Your task to perform on an android device: Open maps Image 0: 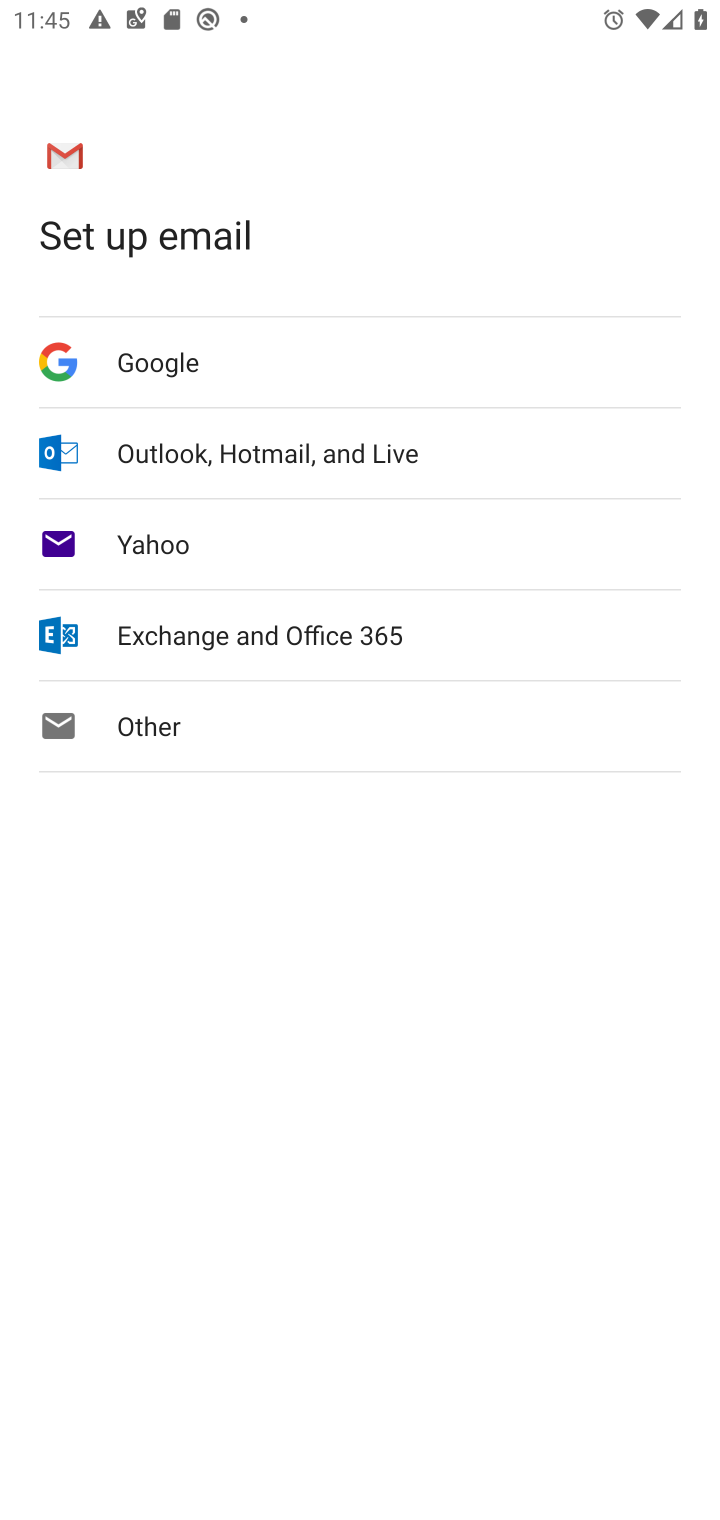
Step 0: press home button
Your task to perform on an android device: Open maps Image 1: 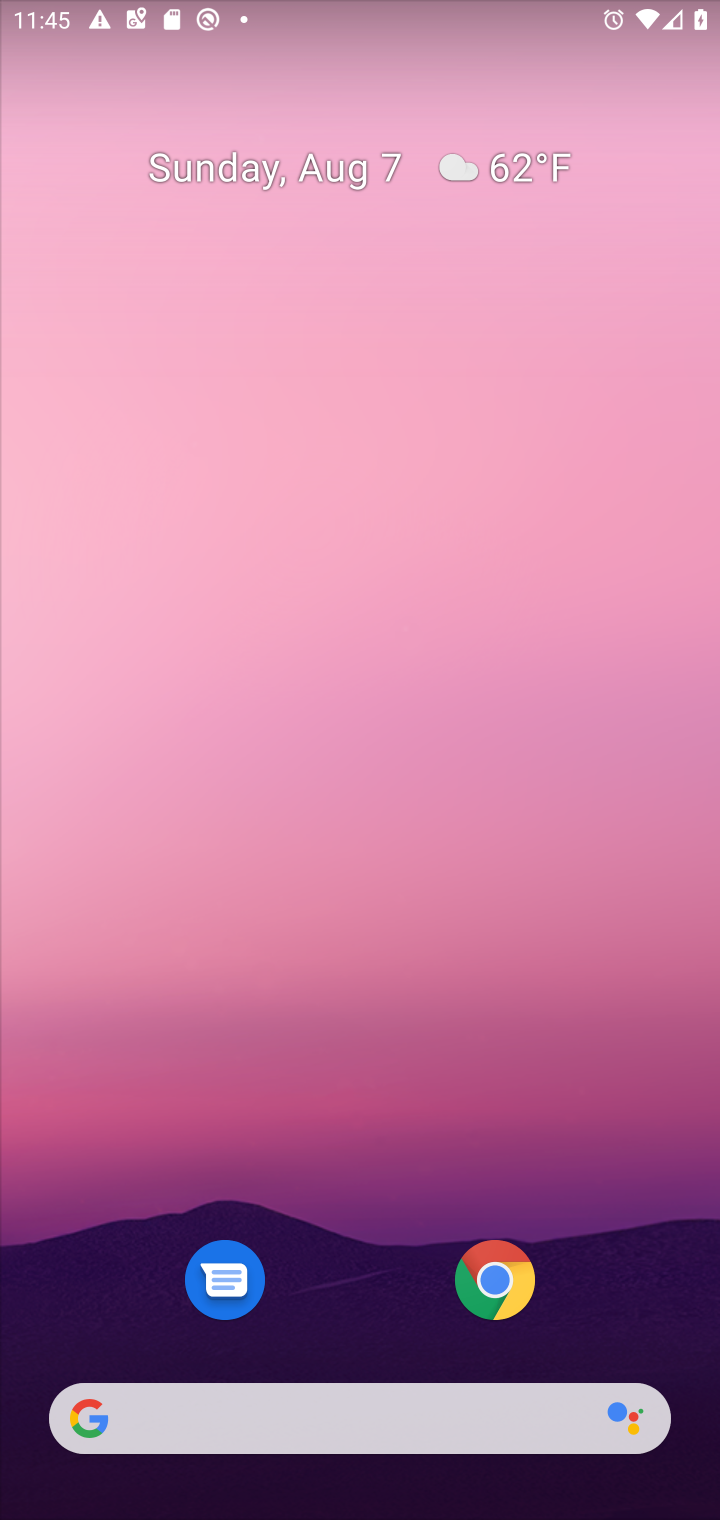
Step 1: drag from (362, 1368) to (280, 350)
Your task to perform on an android device: Open maps Image 2: 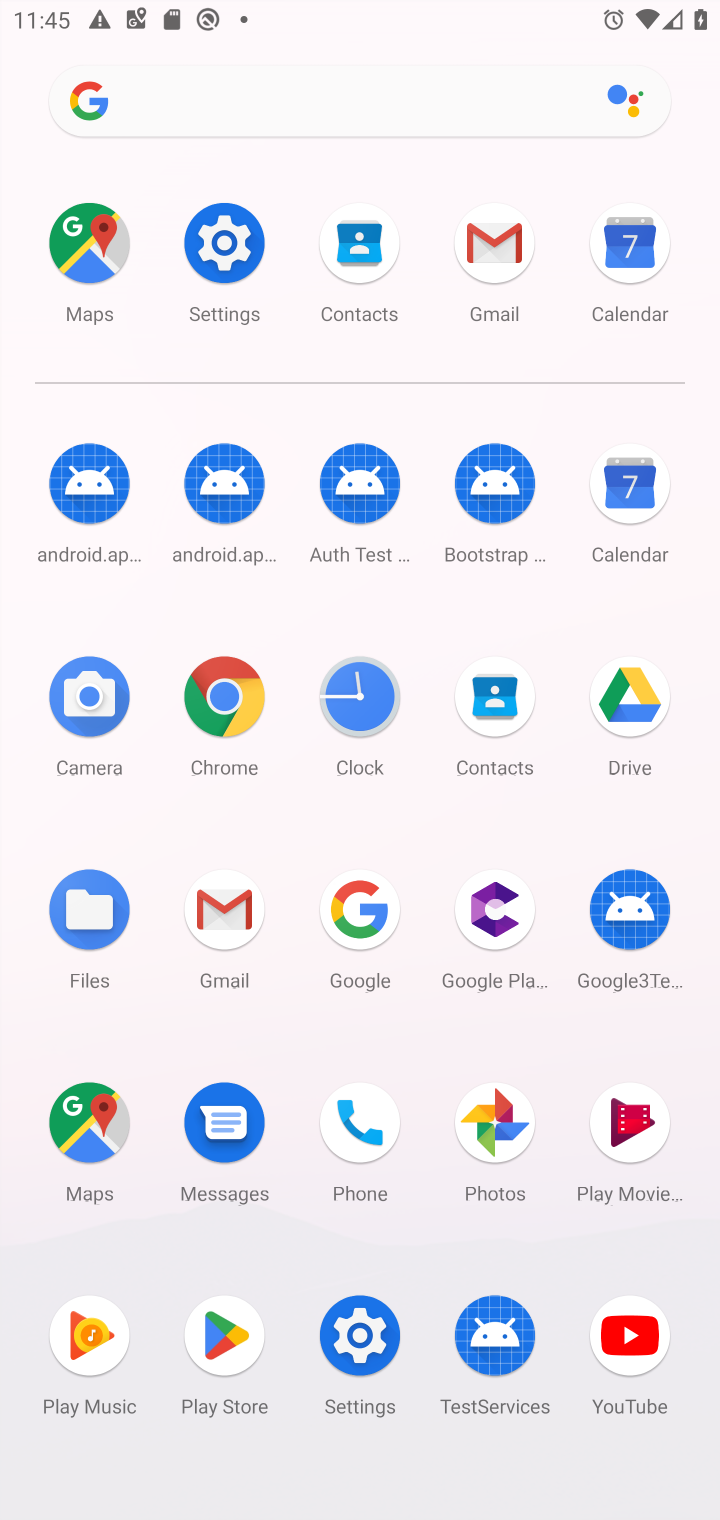
Step 2: click (90, 1136)
Your task to perform on an android device: Open maps Image 3: 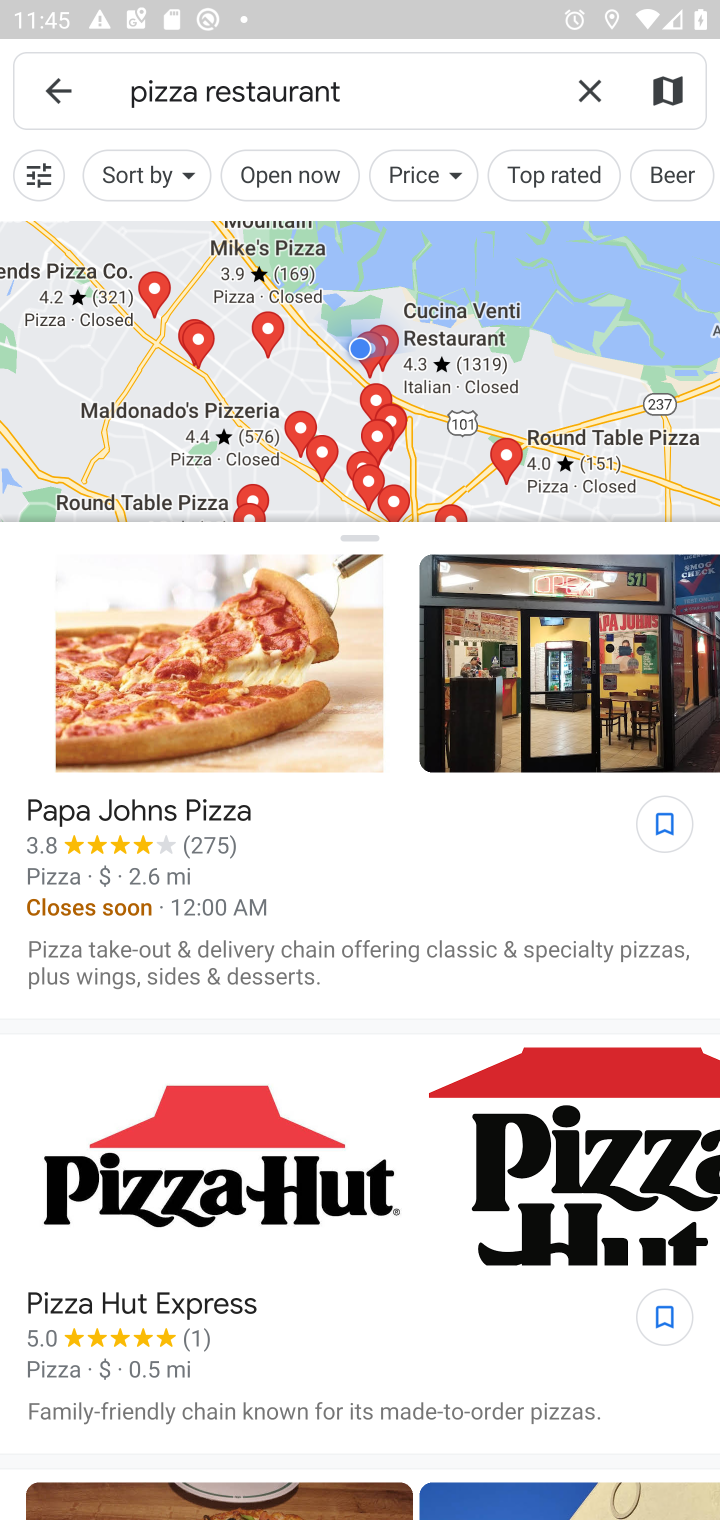
Step 3: task complete